Your task to perform on an android device: turn off data saver in the chrome app Image 0: 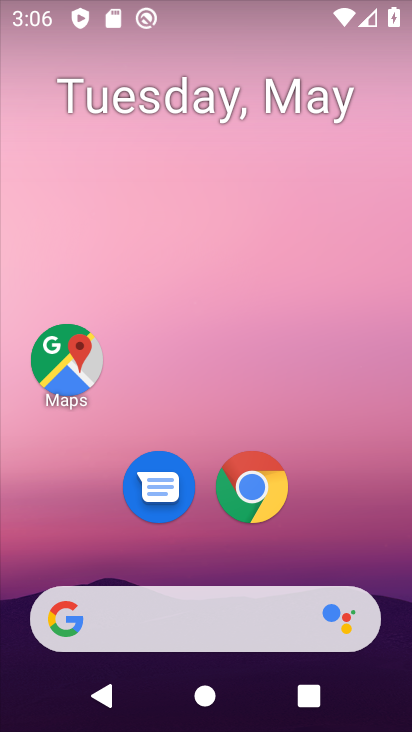
Step 0: drag from (240, 552) to (240, 61)
Your task to perform on an android device: turn off data saver in the chrome app Image 1: 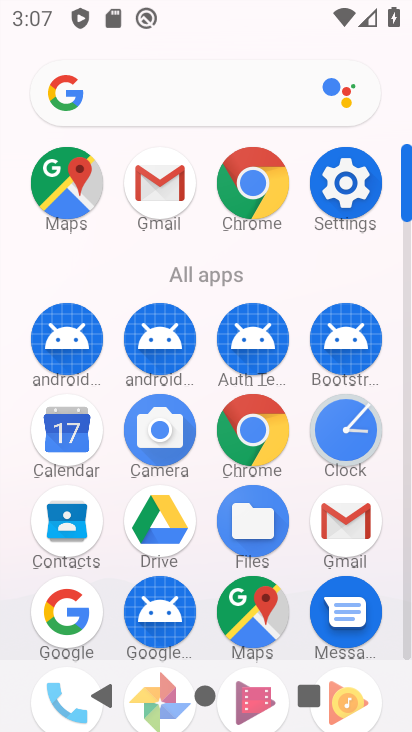
Step 1: click (267, 214)
Your task to perform on an android device: turn off data saver in the chrome app Image 2: 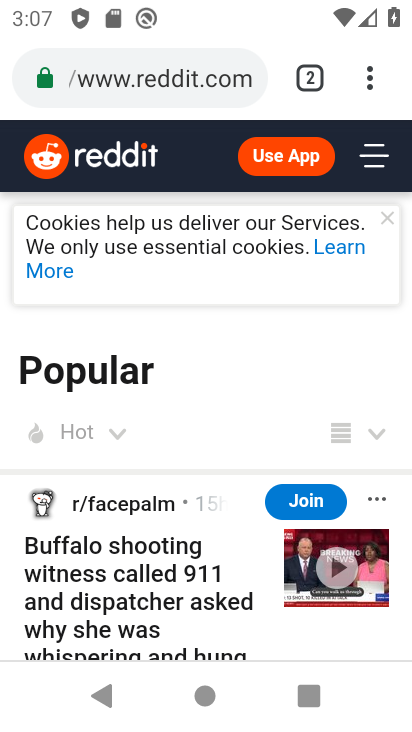
Step 2: click (368, 76)
Your task to perform on an android device: turn off data saver in the chrome app Image 3: 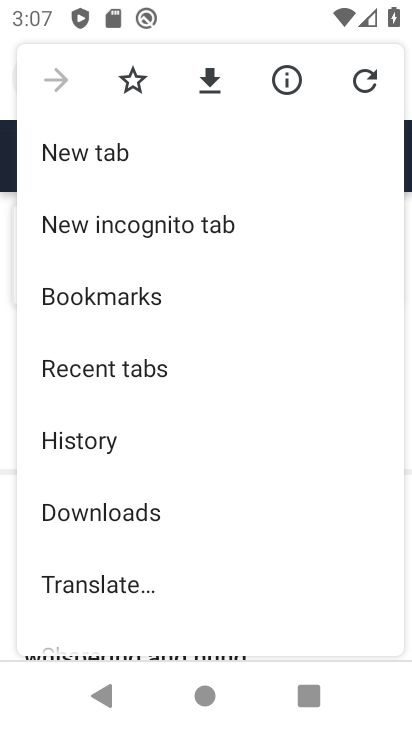
Step 3: drag from (242, 488) to (231, 257)
Your task to perform on an android device: turn off data saver in the chrome app Image 4: 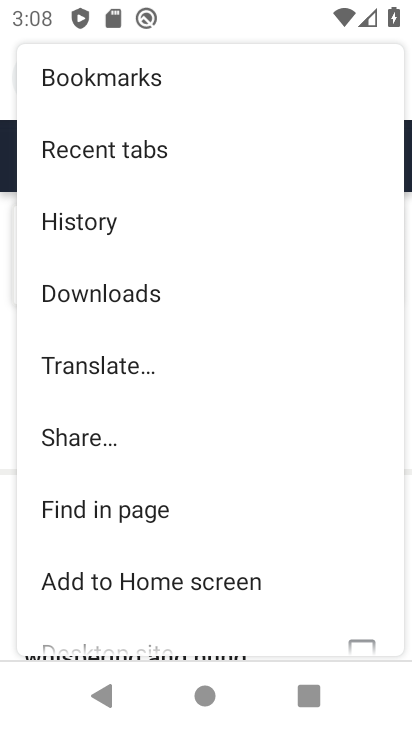
Step 4: drag from (226, 536) to (224, 79)
Your task to perform on an android device: turn off data saver in the chrome app Image 5: 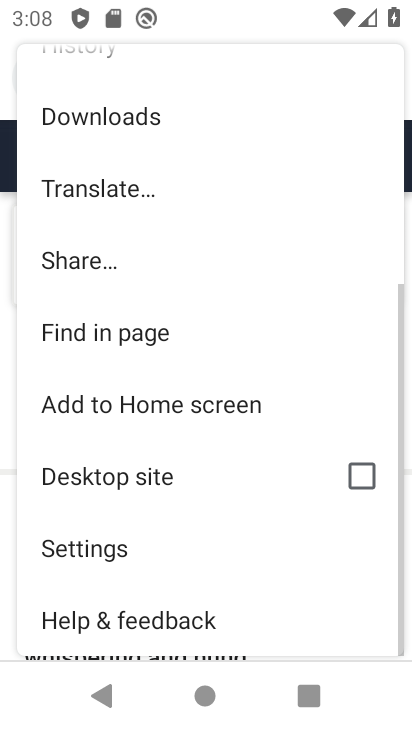
Step 5: click (122, 526)
Your task to perform on an android device: turn off data saver in the chrome app Image 6: 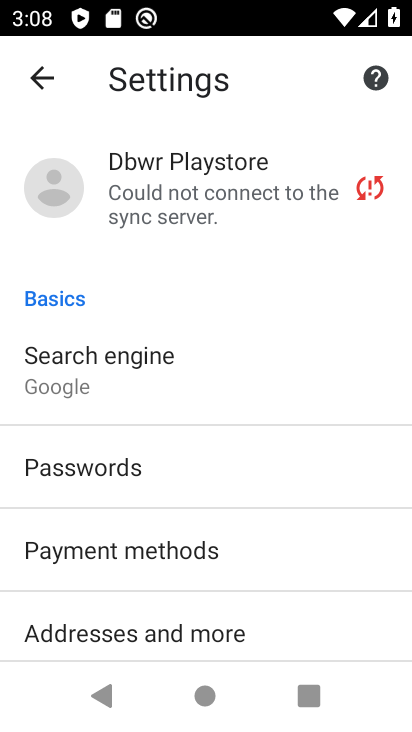
Step 6: drag from (123, 545) to (150, 60)
Your task to perform on an android device: turn off data saver in the chrome app Image 7: 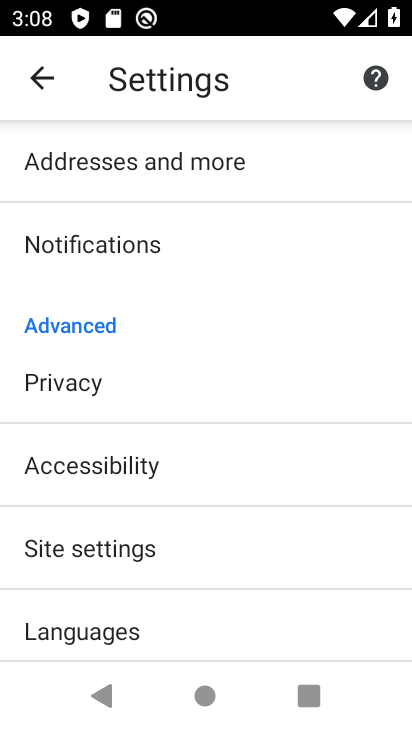
Step 7: drag from (121, 431) to (175, 70)
Your task to perform on an android device: turn off data saver in the chrome app Image 8: 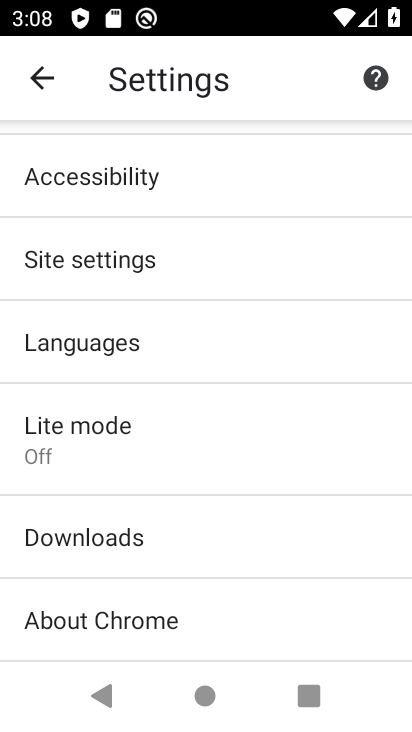
Step 8: click (149, 466)
Your task to perform on an android device: turn off data saver in the chrome app Image 9: 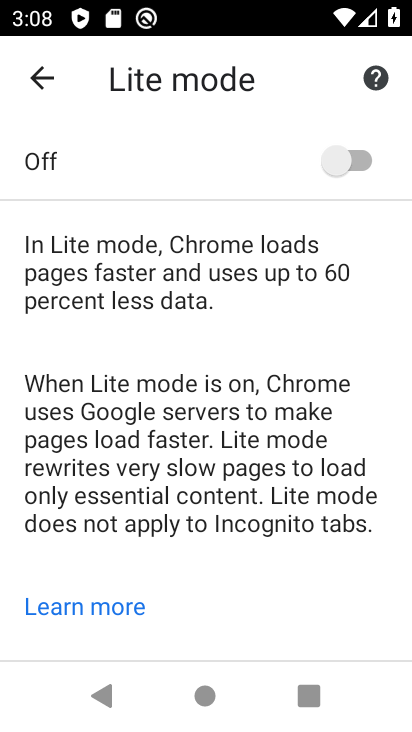
Step 9: task complete